Your task to perform on an android device: toggle pop-ups in chrome Image 0: 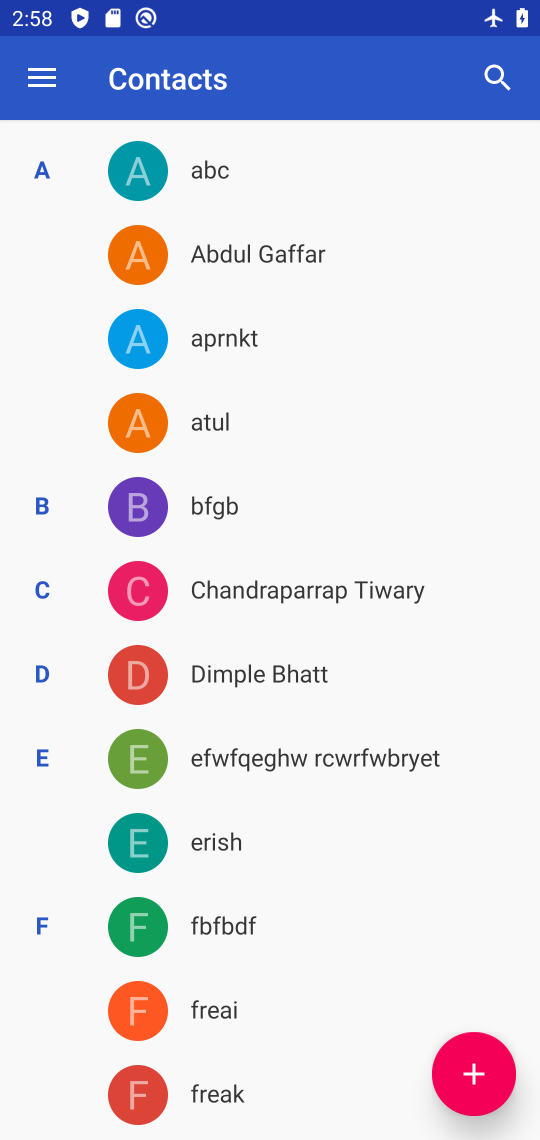
Step 0: press home button
Your task to perform on an android device: toggle pop-ups in chrome Image 1: 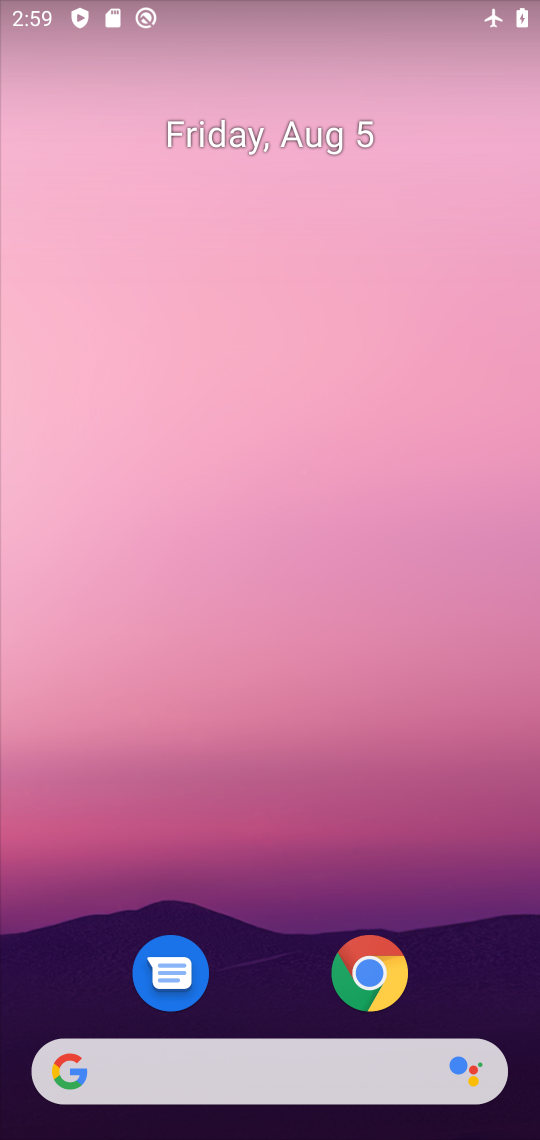
Step 1: click (371, 989)
Your task to perform on an android device: toggle pop-ups in chrome Image 2: 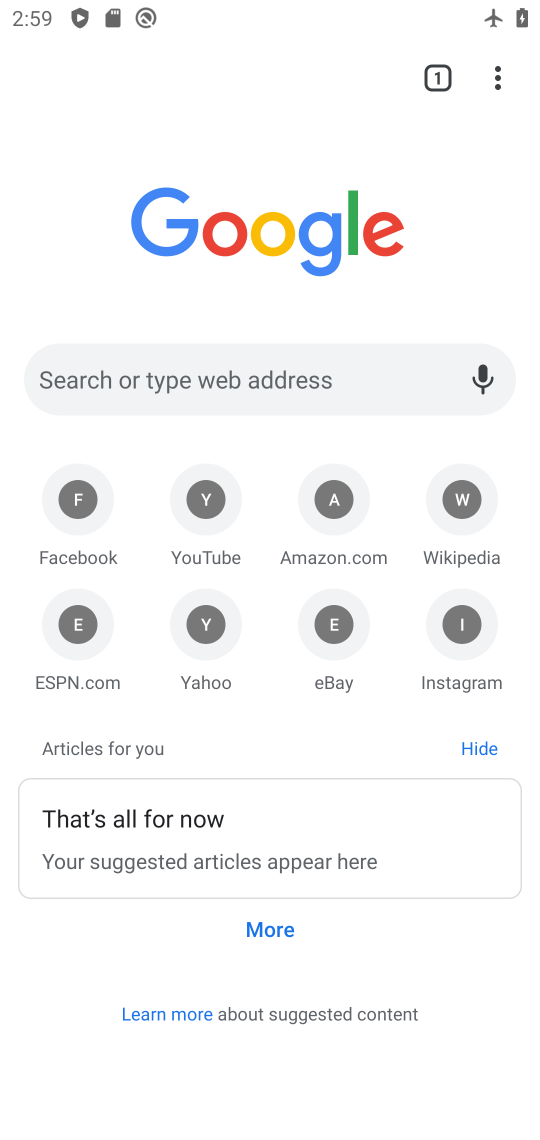
Step 2: click (493, 67)
Your task to perform on an android device: toggle pop-ups in chrome Image 3: 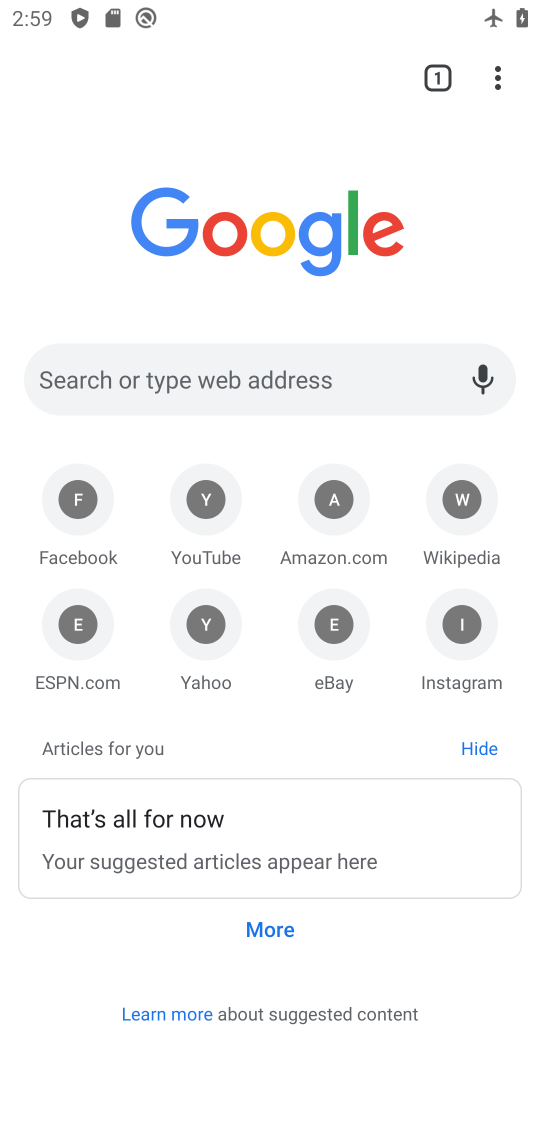
Step 3: drag from (500, 76) to (239, 659)
Your task to perform on an android device: toggle pop-ups in chrome Image 4: 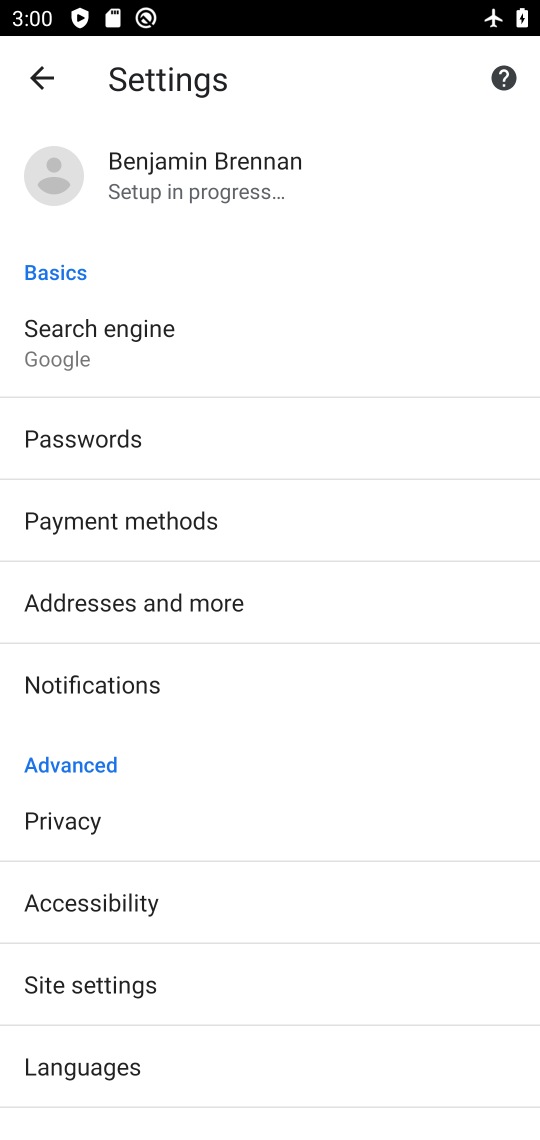
Step 4: click (158, 980)
Your task to perform on an android device: toggle pop-ups in chrome Image 5: 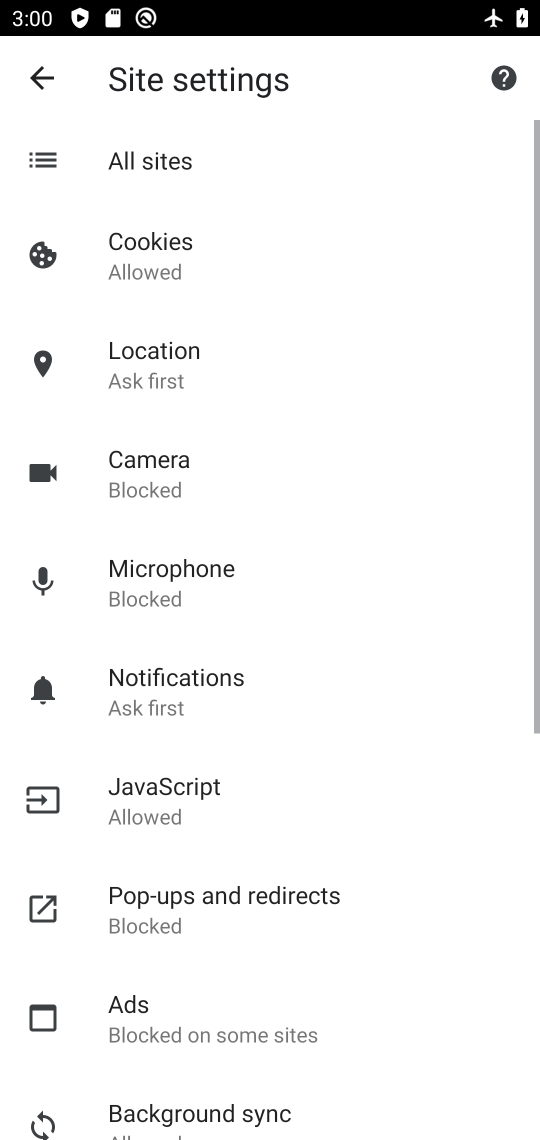
Step 5: click (206, 905)
Your task to perform on an android device: toggle pop-ups in chrome Image 6: 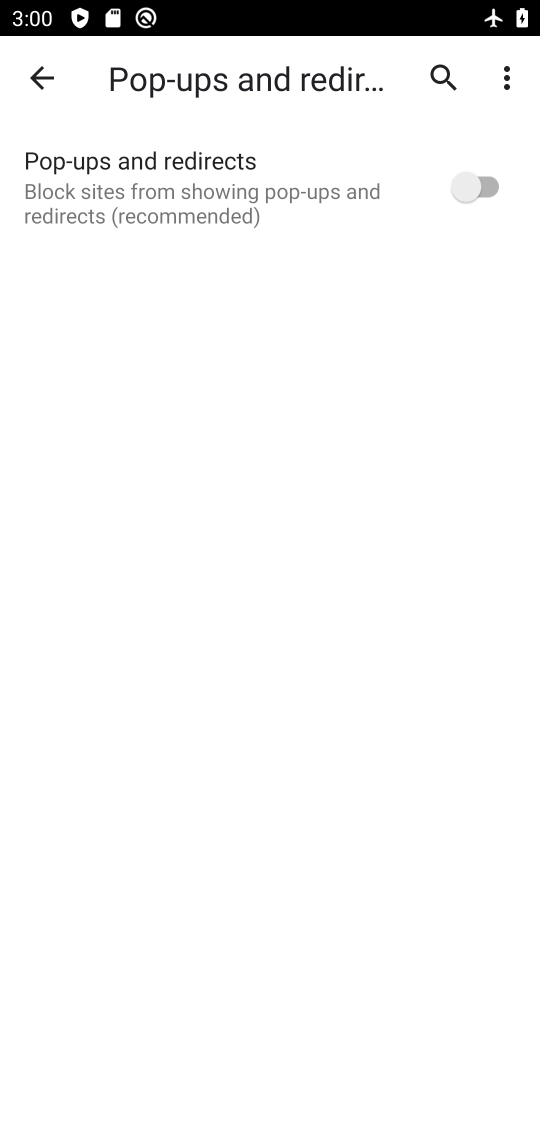
Step 6: click (473, 175)
Your task to perform on an android device: toggle pop-ups in chrome Image 7: 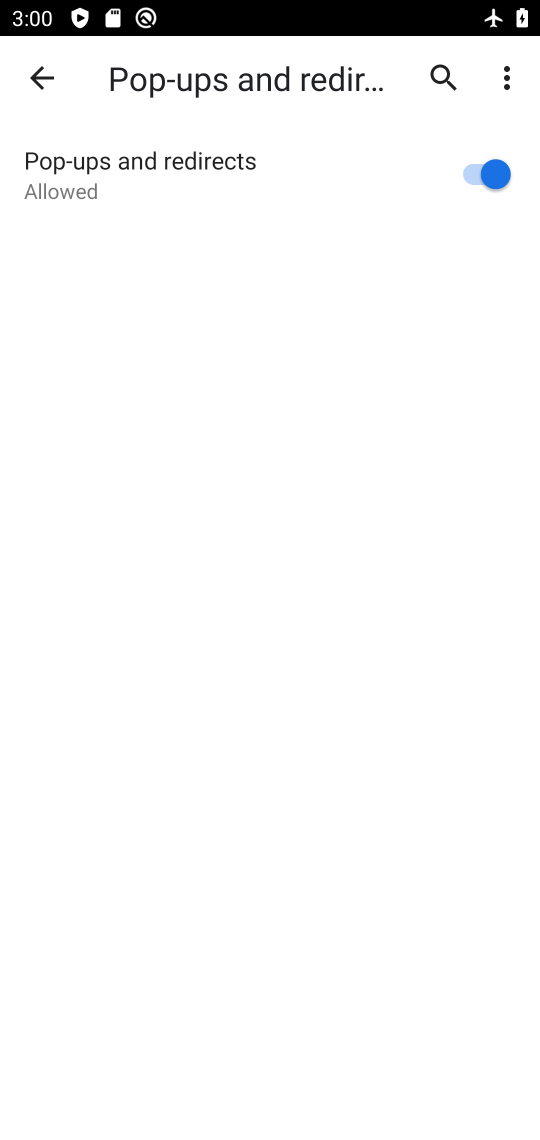
Step 7: task complete